Your task to perform on an android device: change notifications settings Image 0: 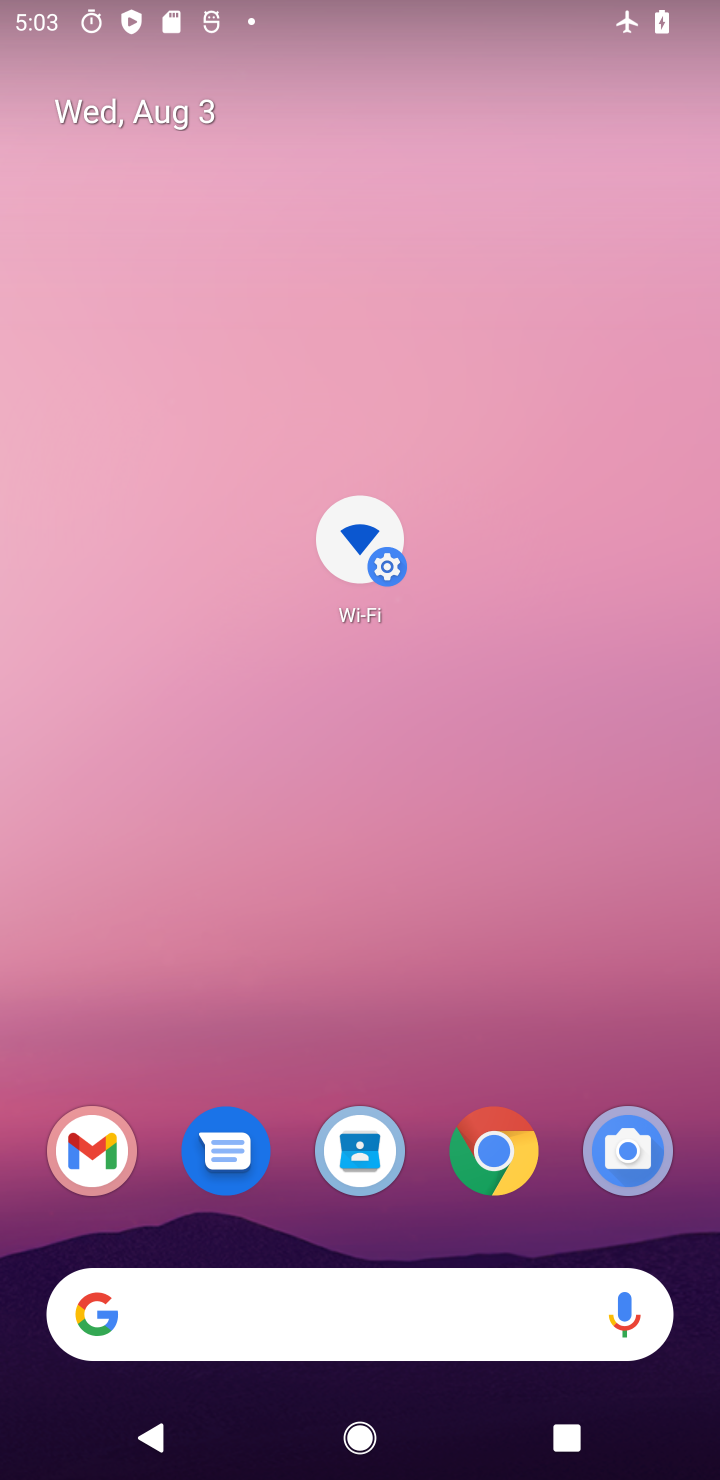
Step 0: drag from (254, 734) to (174, 319)
Your task to perform on an android device: change notifications settings Image 1: 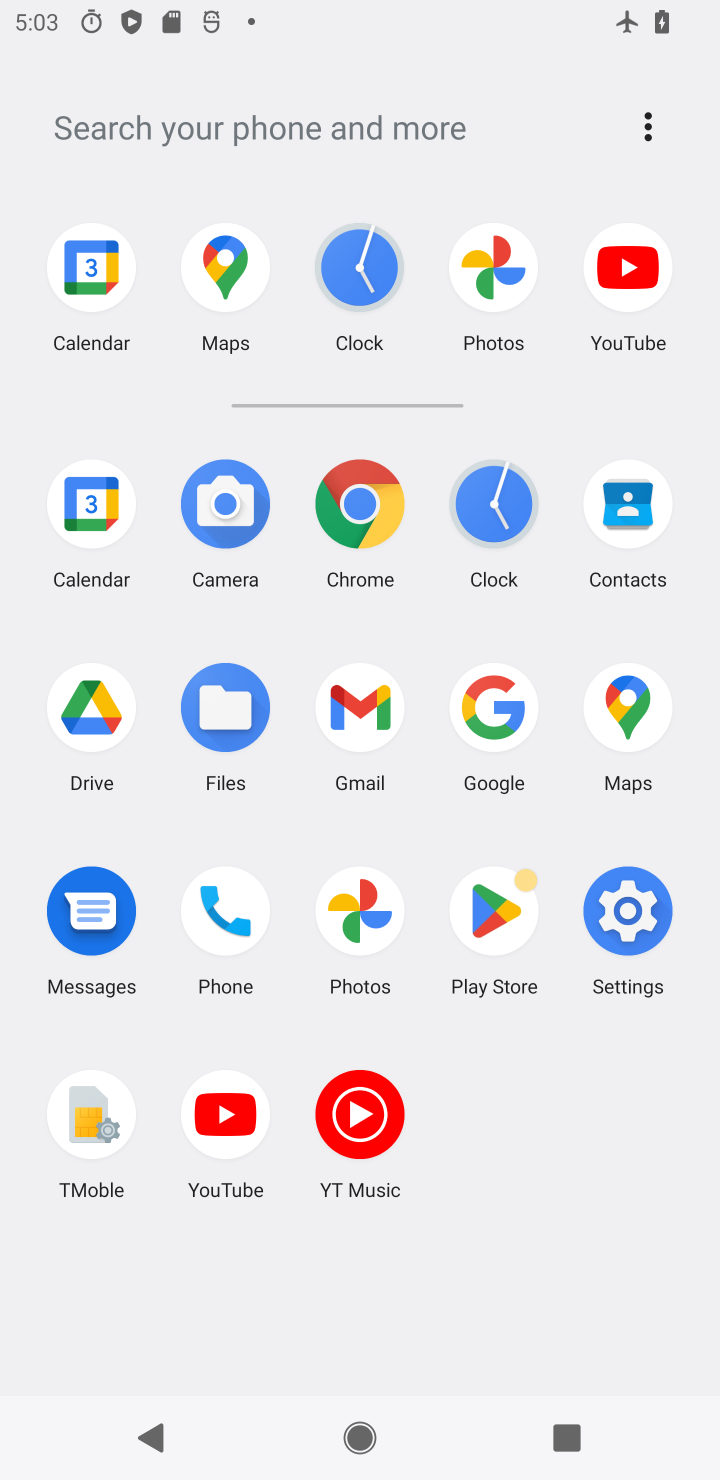
Step 1: click (595, 910)
Your task to perform on an android device: change notifications settings Image 2: 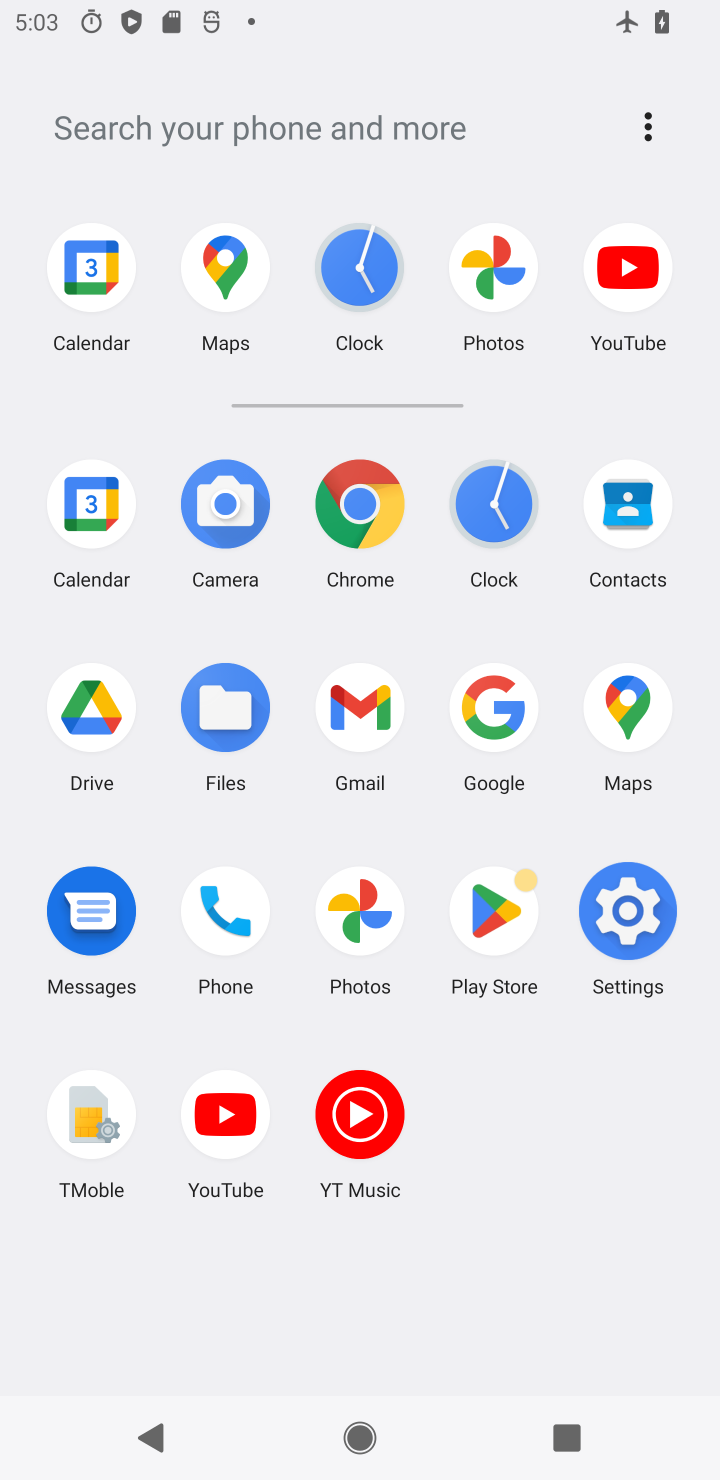
Step 2: click (601, 911)
Your task to perform on an android device: change notifications settings Image 3: 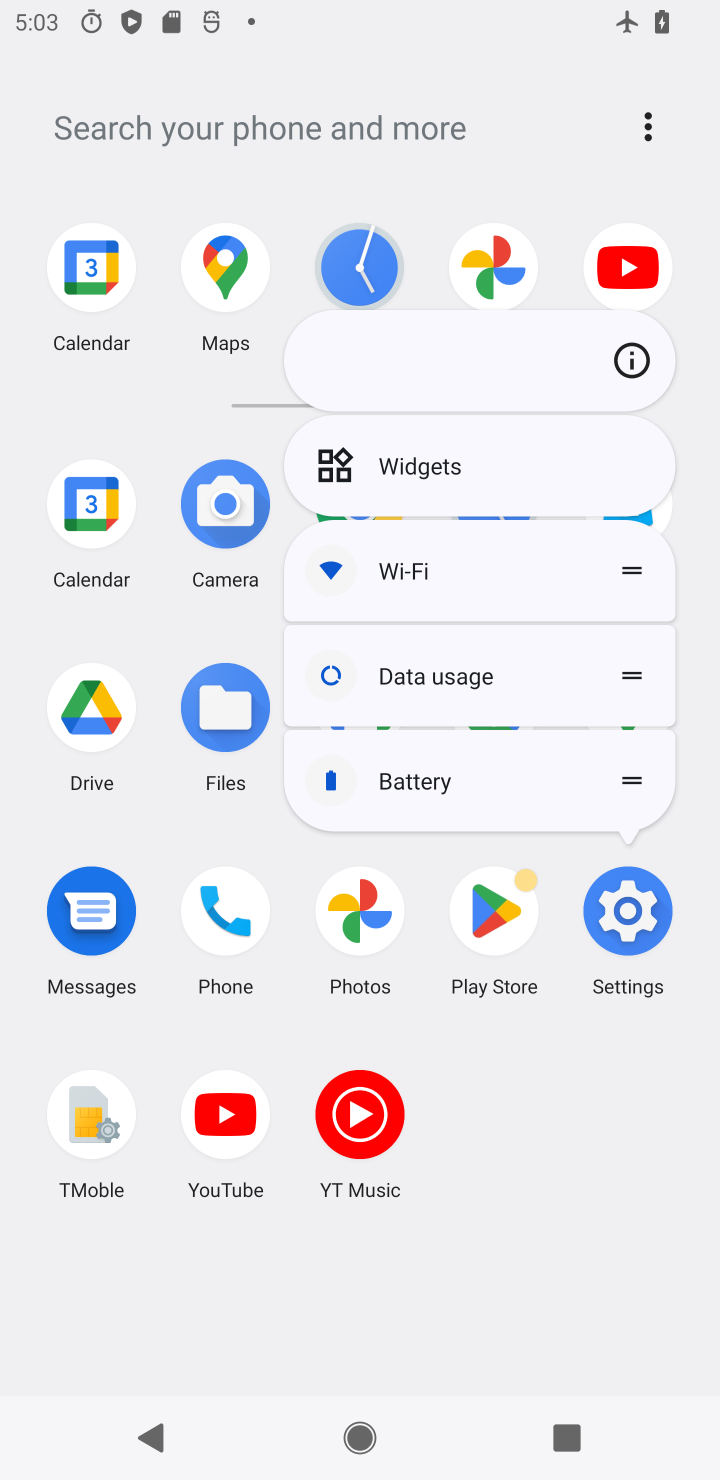
Step 3: click (614, 898)
Your task to perform on an android device: change notifications settings Image 4: 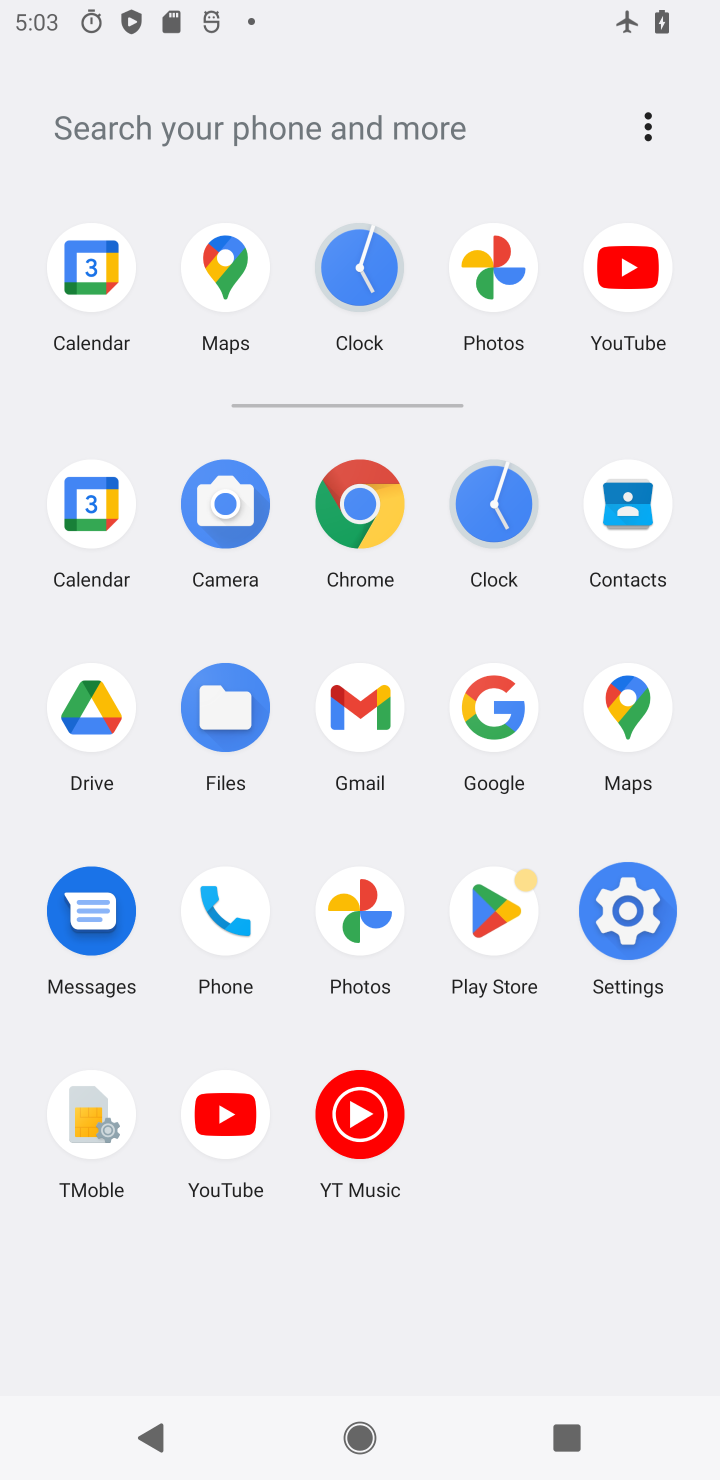
Step 4: click (617, 898)
Your task to perform on an android device: change notifications settings Image 5: 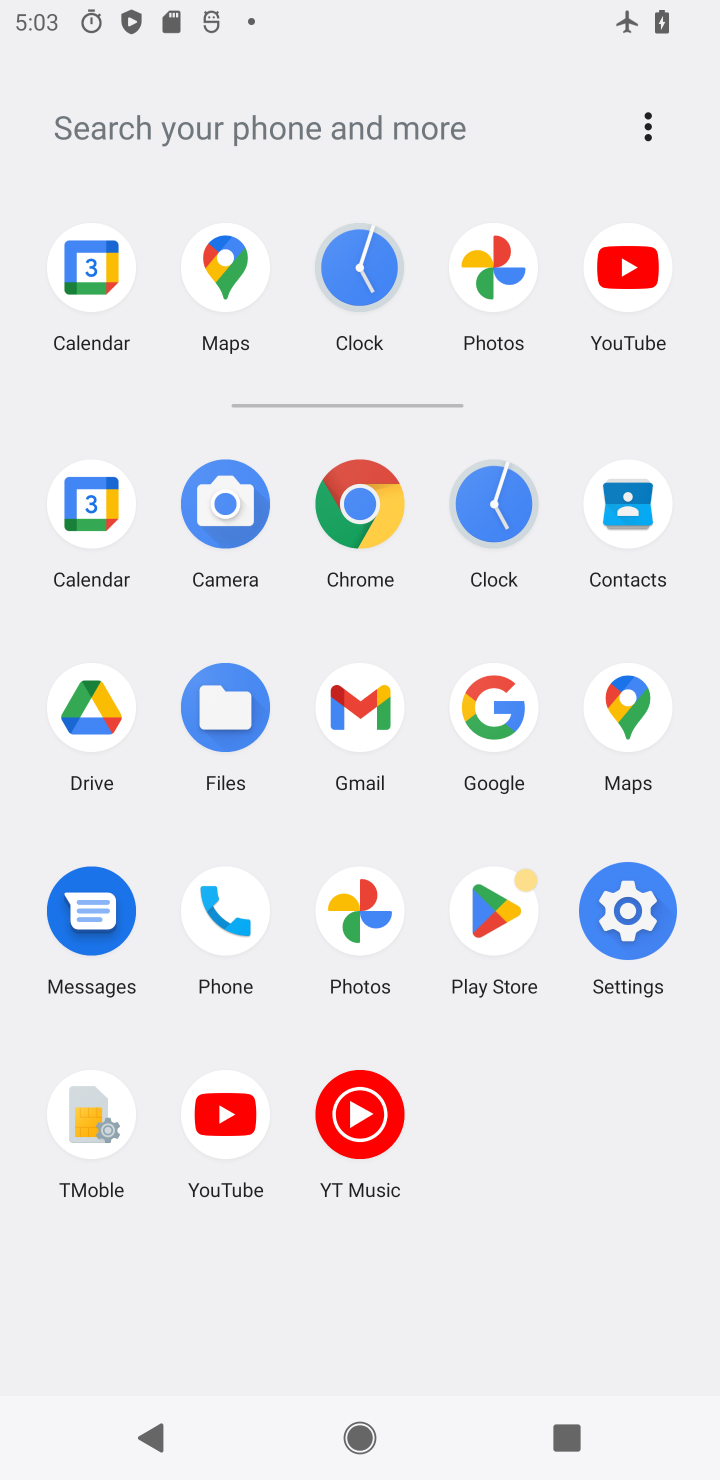
Step 5: click (626, 894)
Your task to perform on an android device: change notifications settings Image 6: 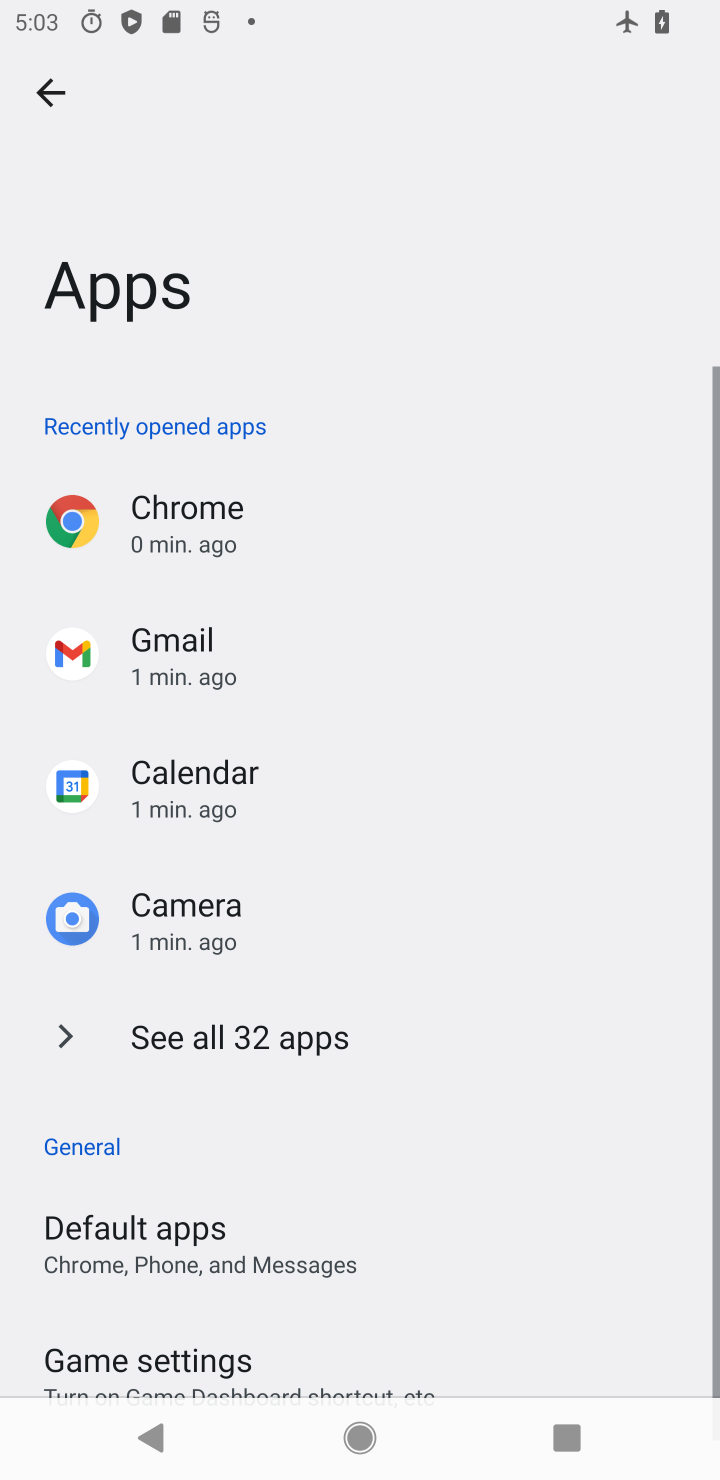
Step 6: click (34, 99)
Your task to perform on an android device: change notifications settings Image 7: 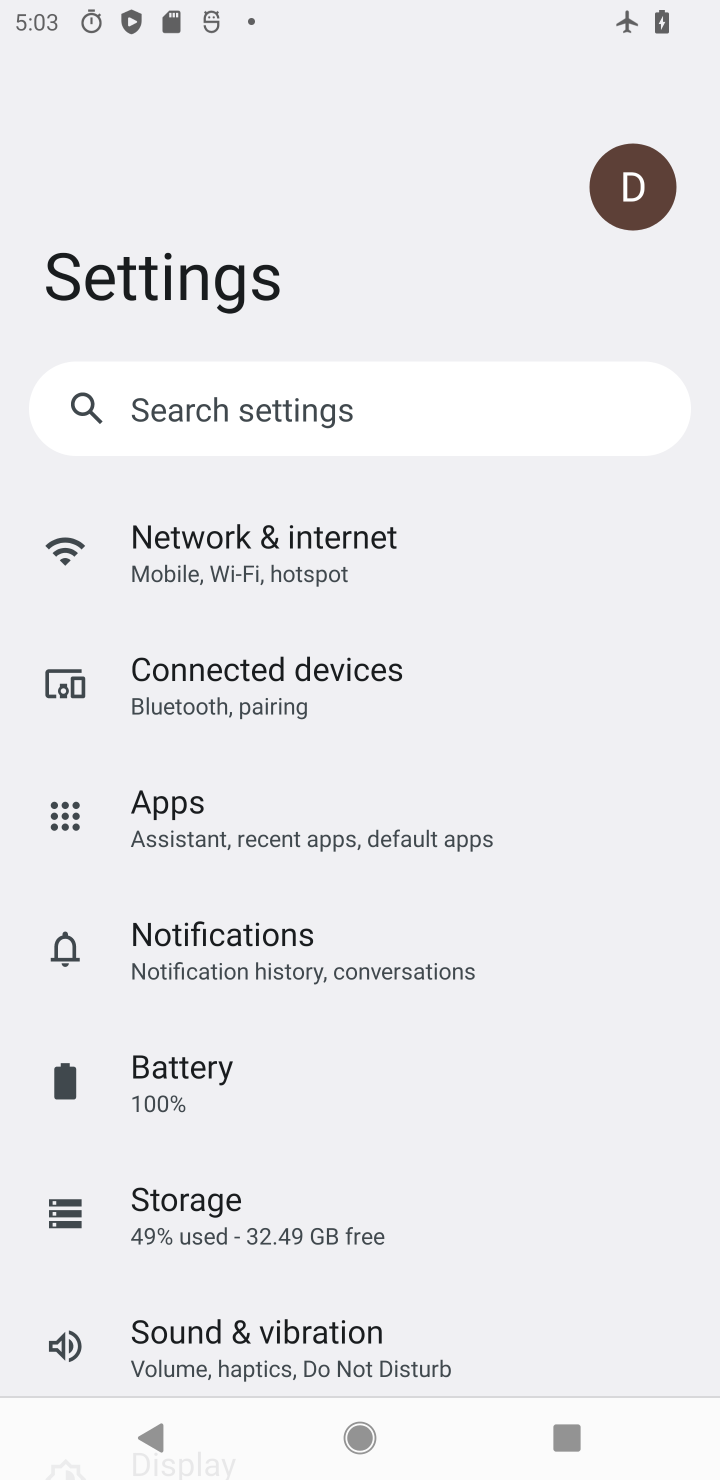
Step 7: drag from (219, 912) to (169, 486)
Your task to perform on an android device: change notifications settings Image 8: 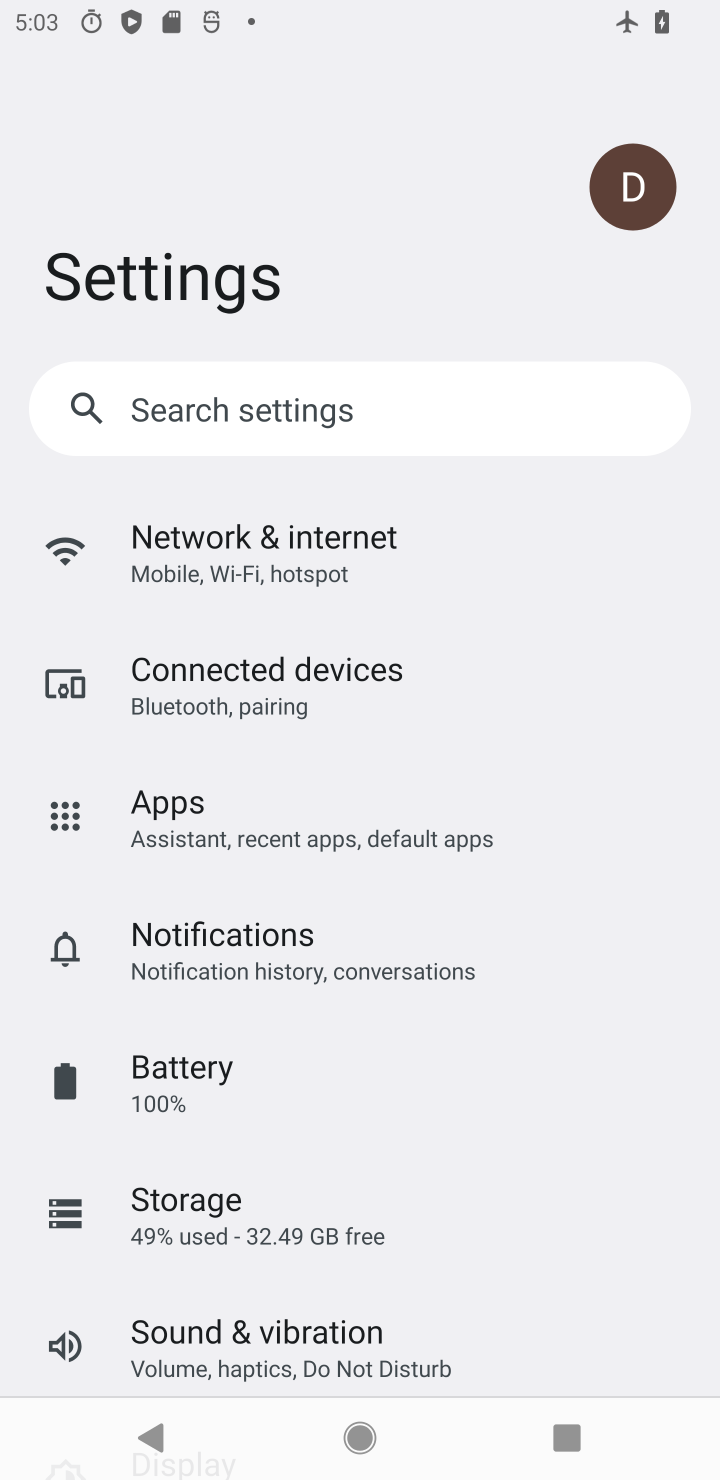
Step 8: click (291, 427)
Your task to perform on an android device: change notifications settings Image 9: 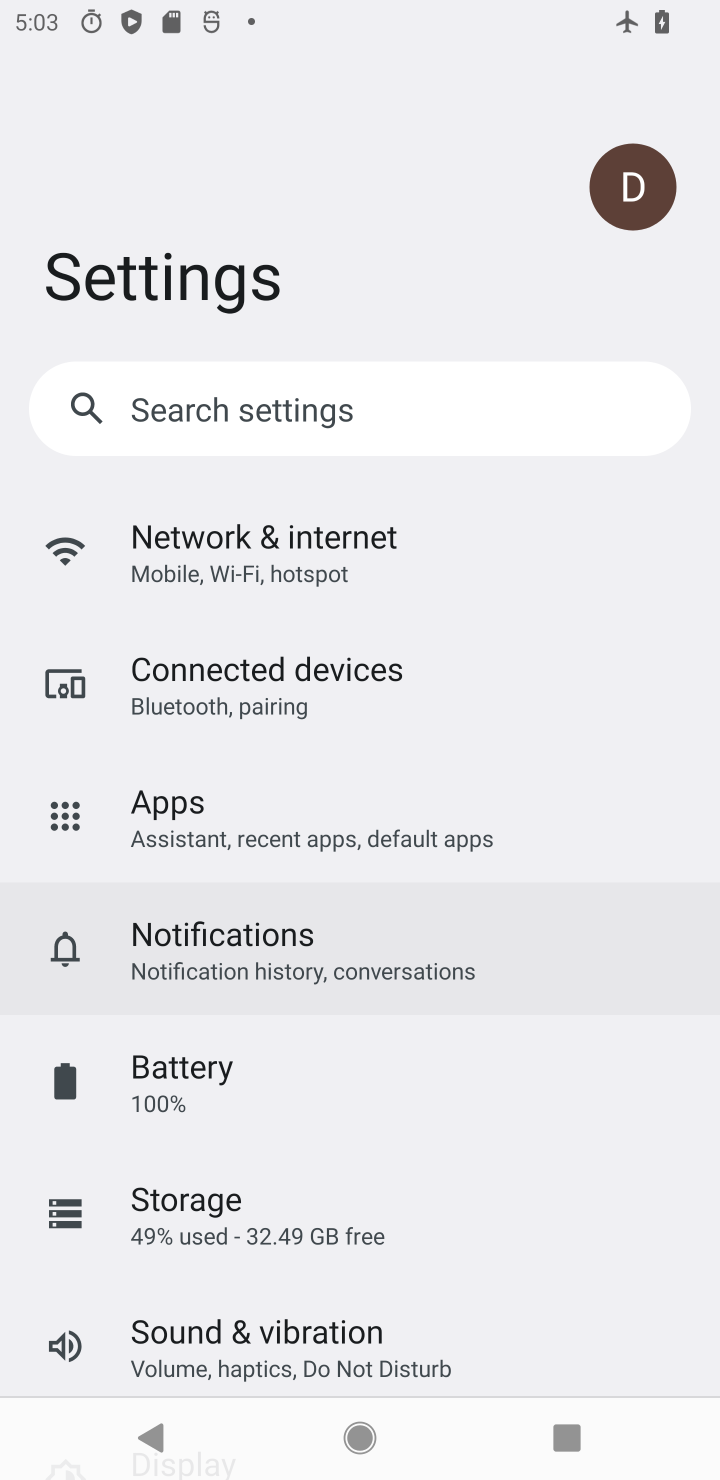
Step 9: drag from (368, 871) to (319, 375)
Your task to perform on an android device: change notifications settings Image 10: 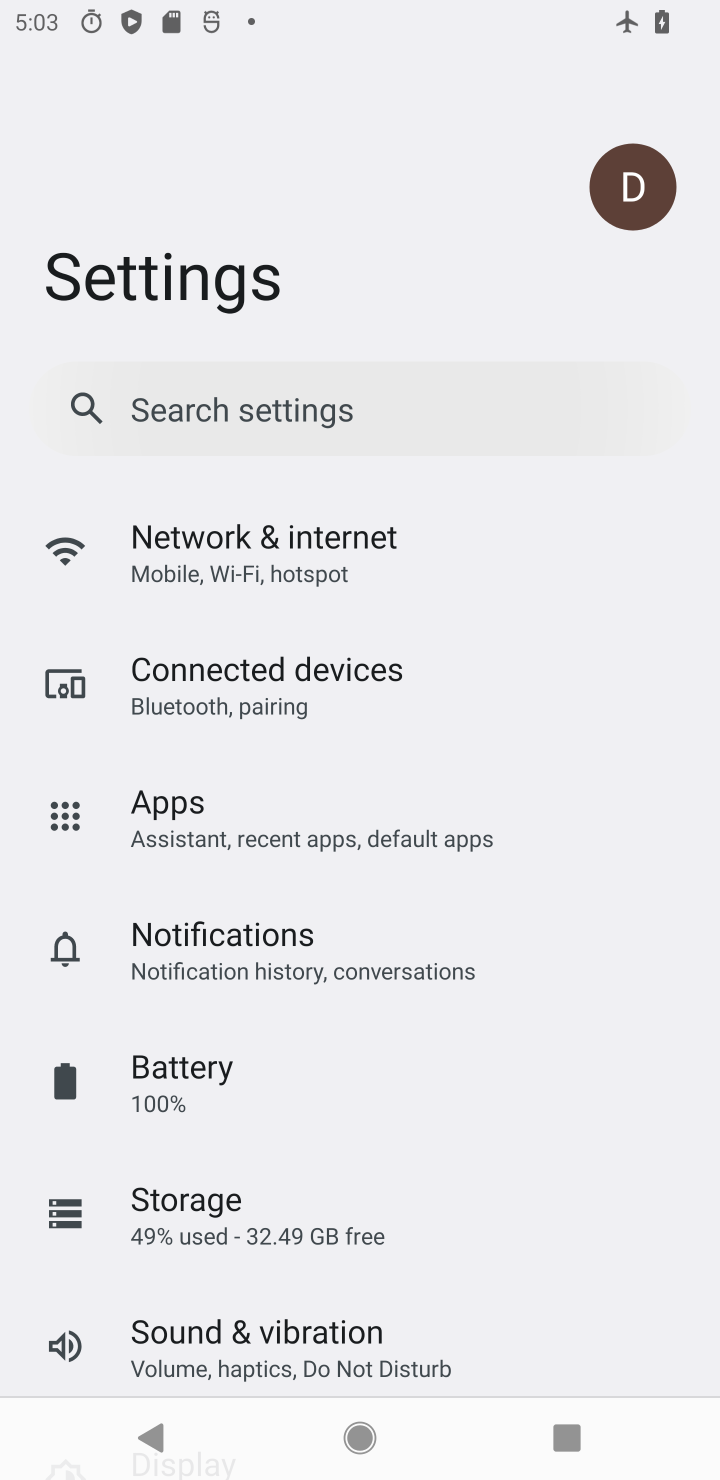
Step 10: drag from (326, 845) to (275, 544)
Your task to perform on an android device: change notifications settings Image 11: 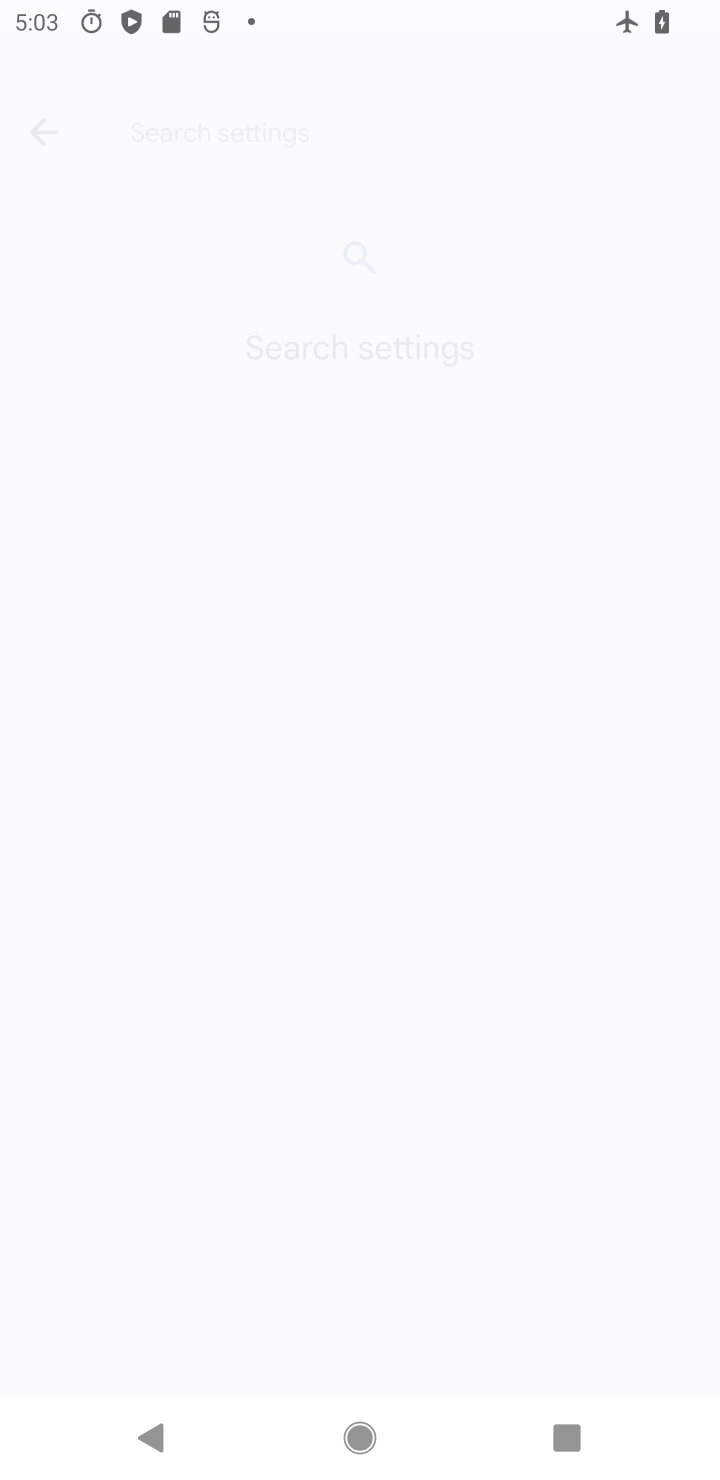
Step 11: drag from (262, 1178) to (252, 515)
Your task to perform on an android device: change notifications settings Image 12: 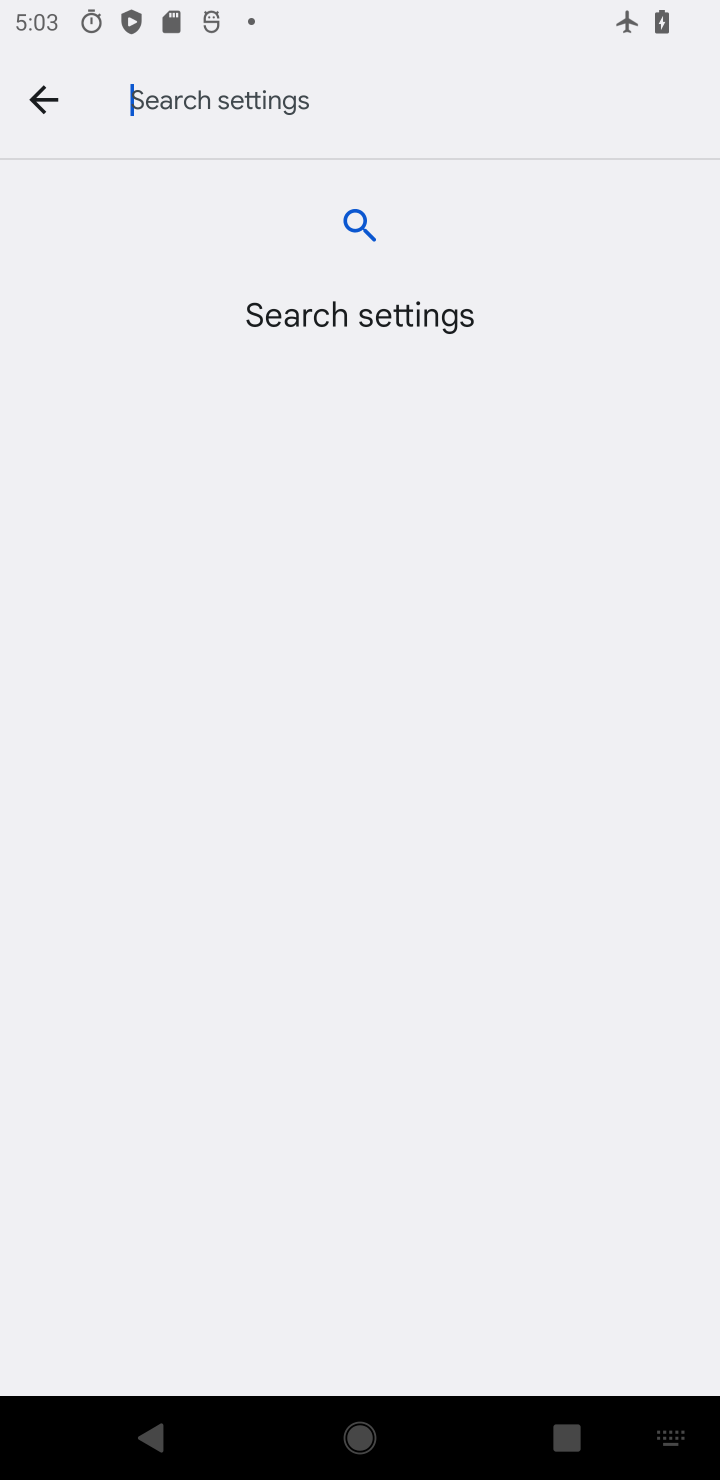
Step 12: click (40, 106)
Your task to perform on an android device: change notifications settings Image 13: 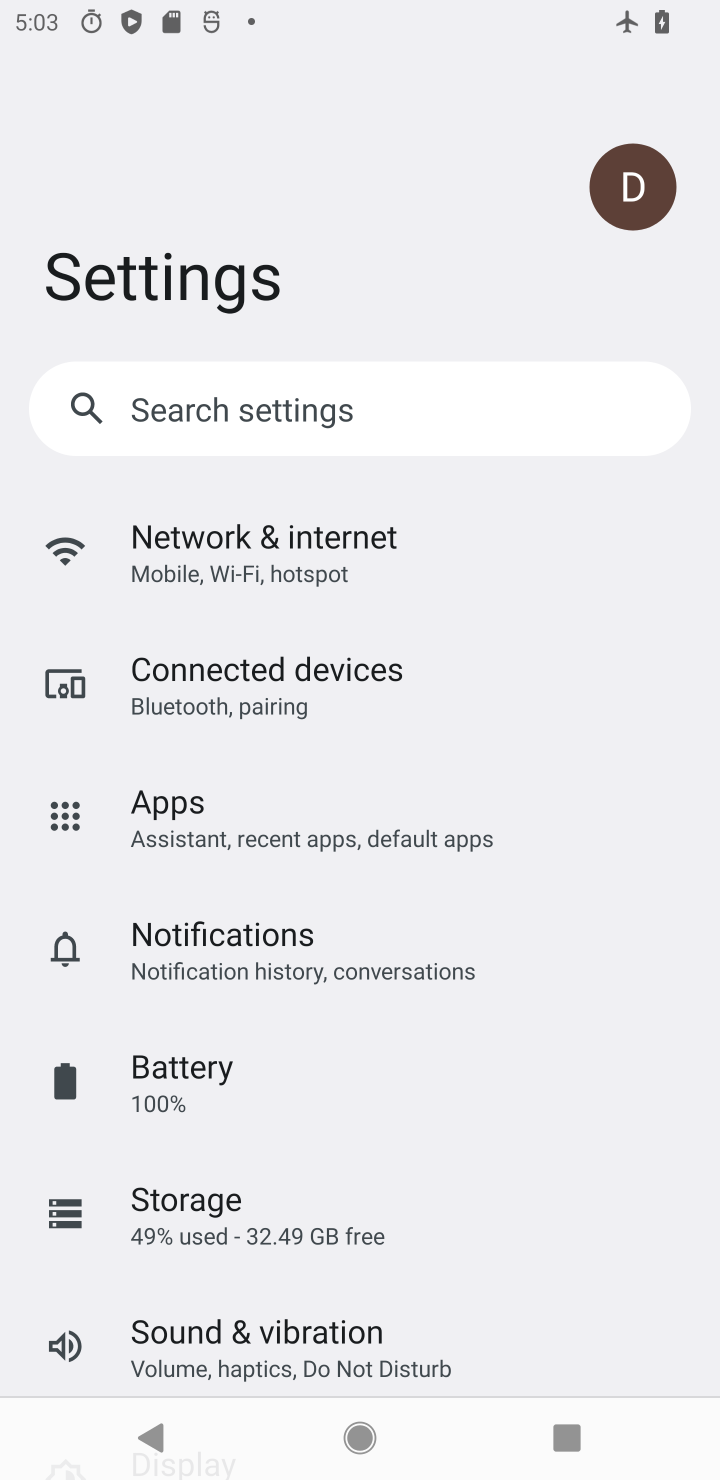
Step 13: click (228, 945)
Your task to perform on an android device: change notifications settings Image 14: 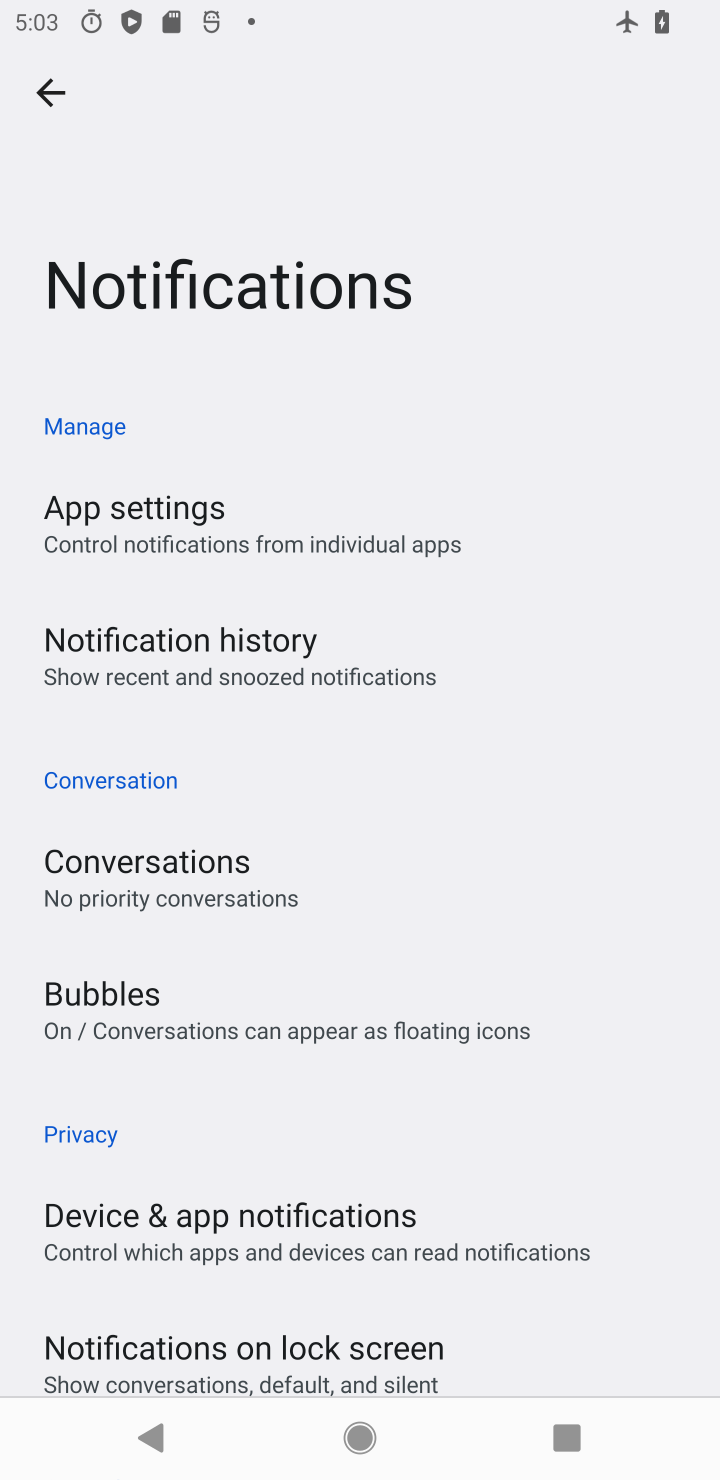
Step 14: drag from (204, 794) to (180, 136)
Your task to perform on an android device: change notifications settings Image 15: 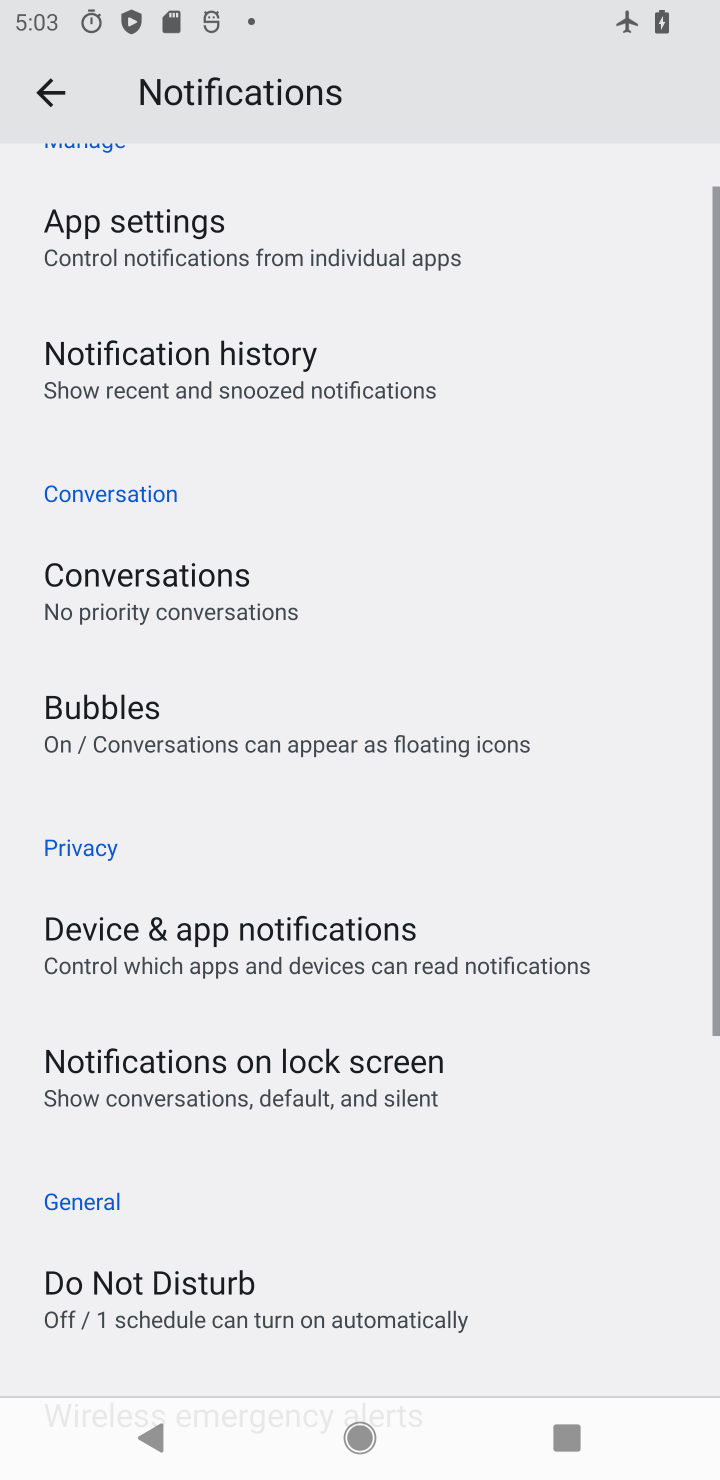
Step 15: drag from (312, 697) to (312, 494)
Your task to perform on an android device: change notifications settings Image 16: 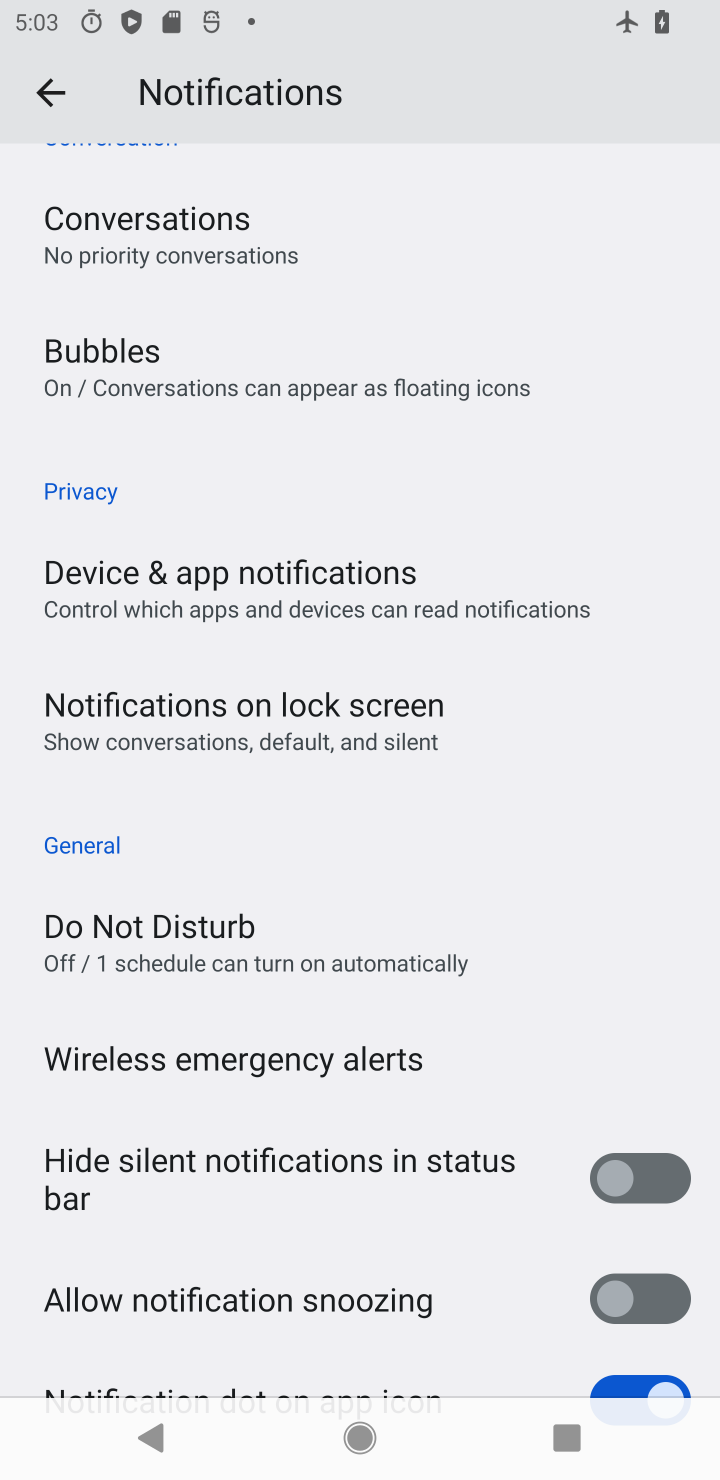
Step 16: drag from (209, 511) to (323, 1027)
Your task to perform on an android device: change notifications settings Image 17: 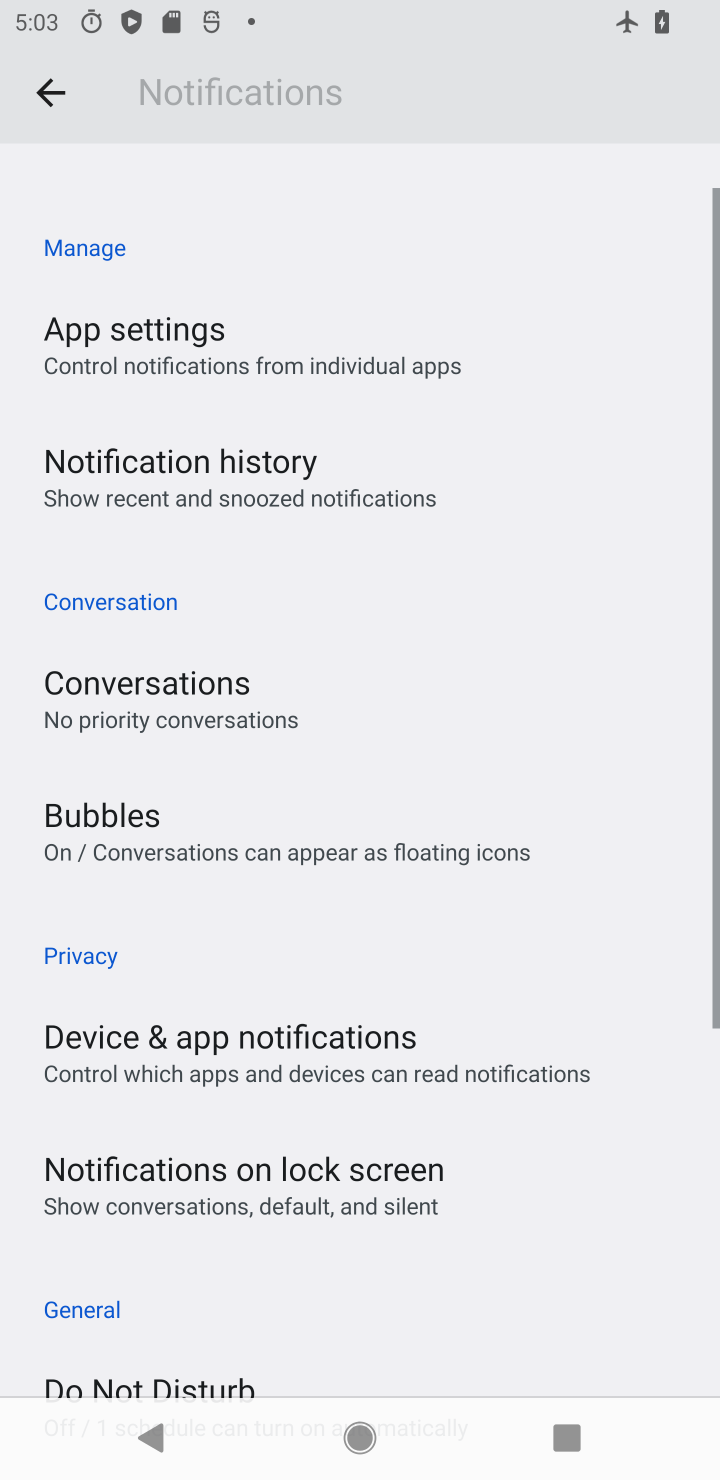
Step 17: drag from (230, 437) to (343, 1067)
Your task to perform on an android device: change notifications settings Image 18: 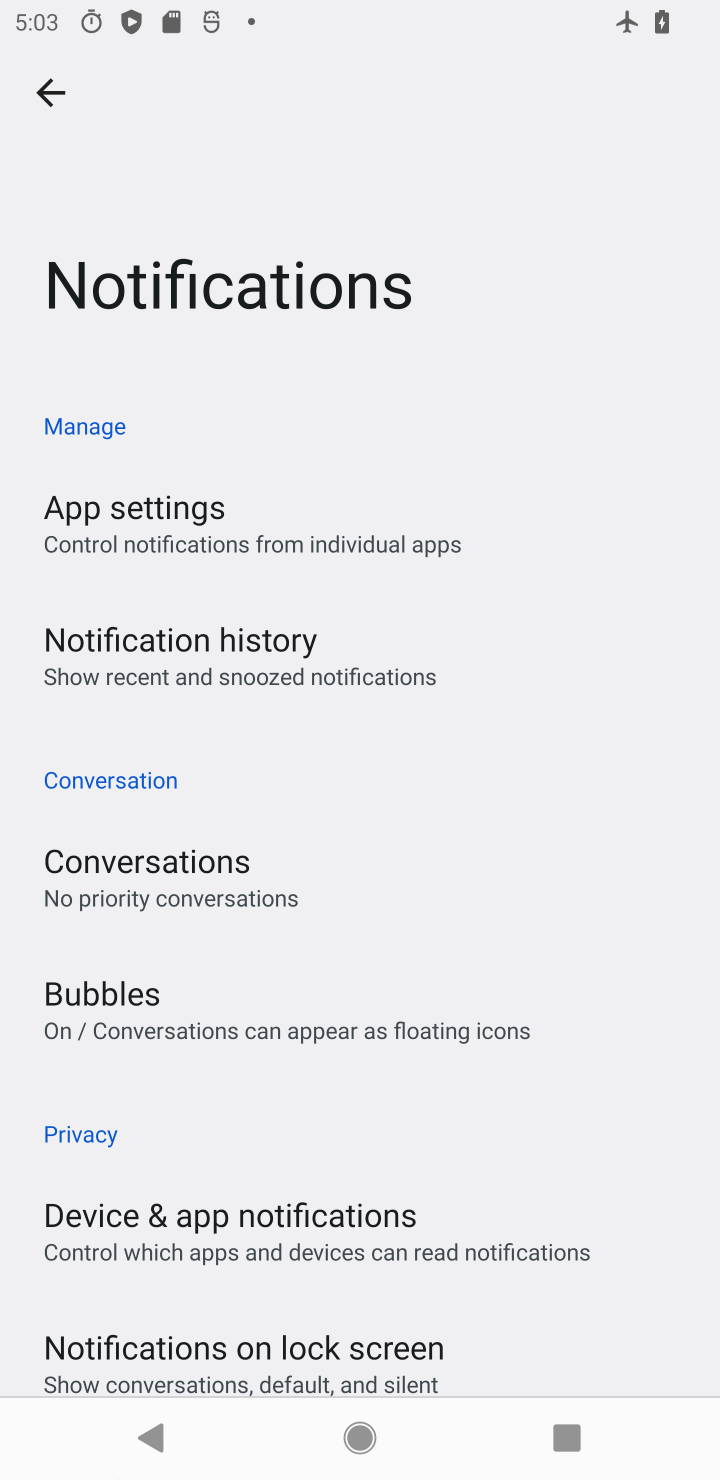
Step 18: click (168, 656)
Your task to perform on an android device: change notifications settings Image 19: 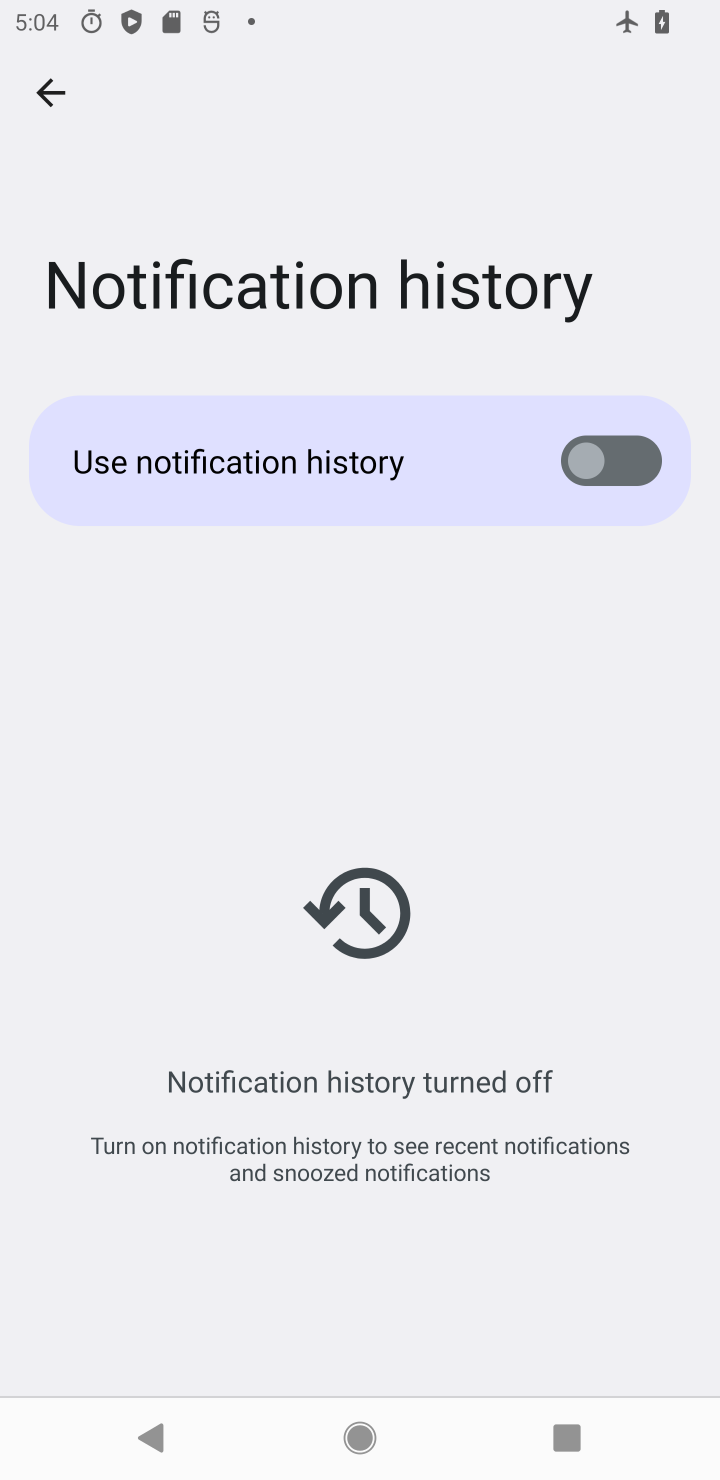
Step 19: click (587, 458)
Your task to perform on an android device: change notifications settings Image 20: 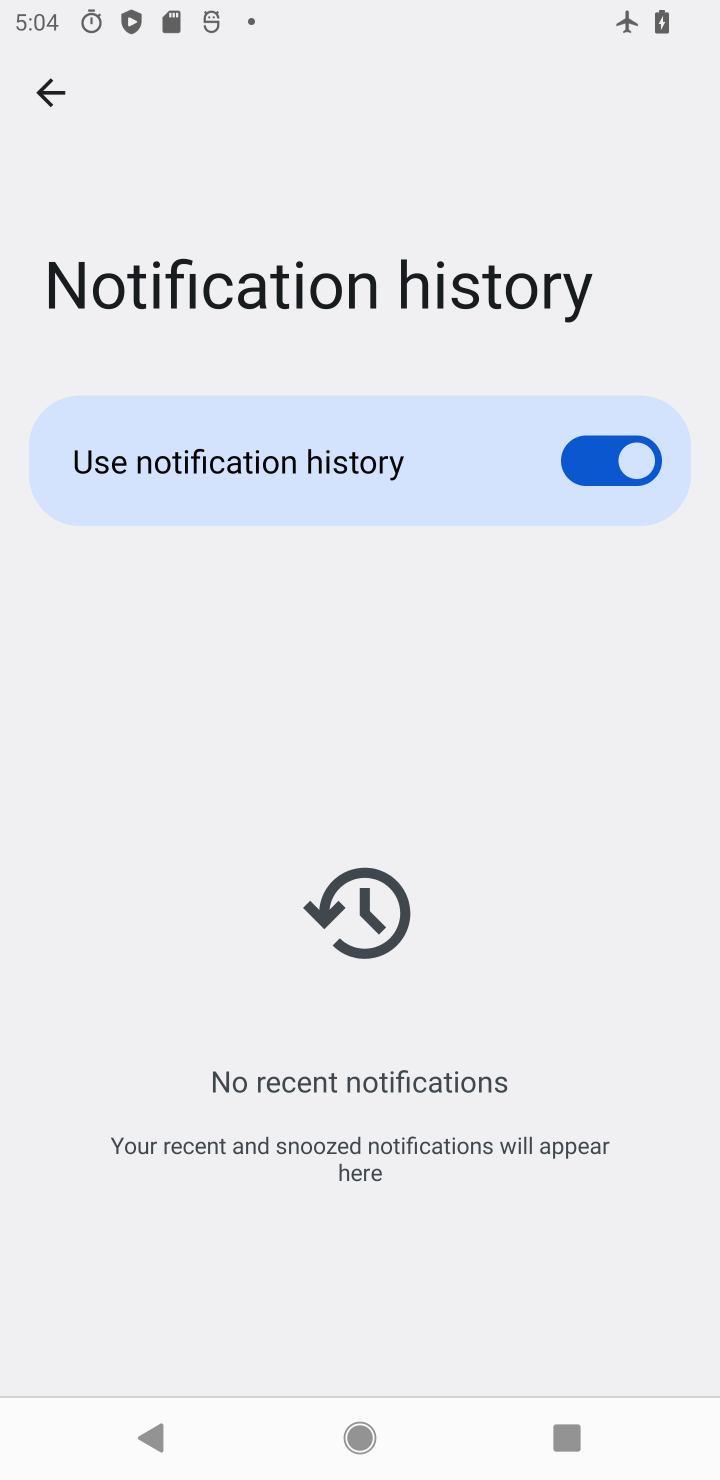
Step 20: task complete